Your task to perform on an android device: Open calendar and show me the fourth week of next month Image 0: 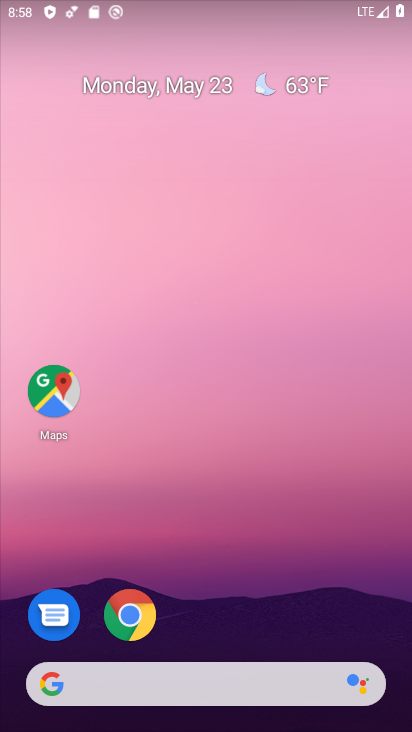
Step 0: drag from (267, 599) to (273, 118)
Your task to perform on an android device: Open calendar and show me the fourth week of next month Image 1: 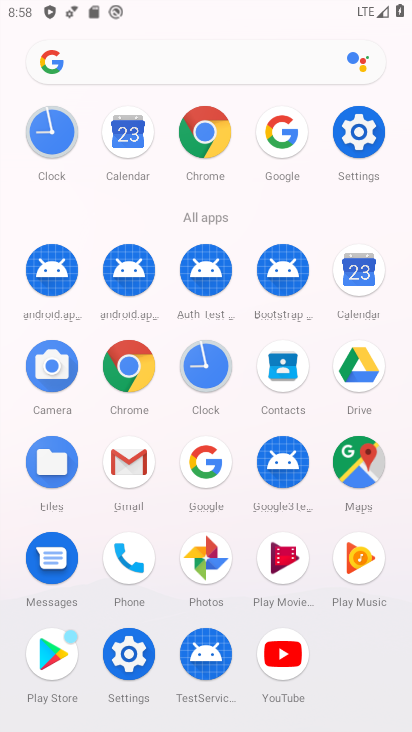
Step 1: click (352, 273)
Your task to perform on an android device: Open calendar and show me the fourth week of next month Image 2: 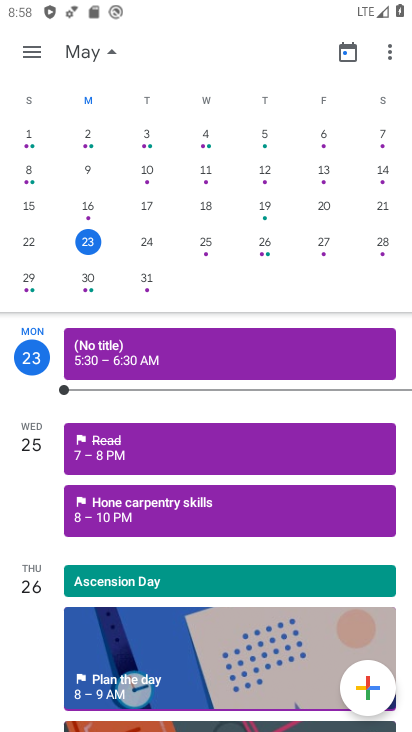
Step 2: drag from (371, 288) to (7, 294)
Your task to perform on an android device: Open calendar and show me the fourth week of next month Image 3: 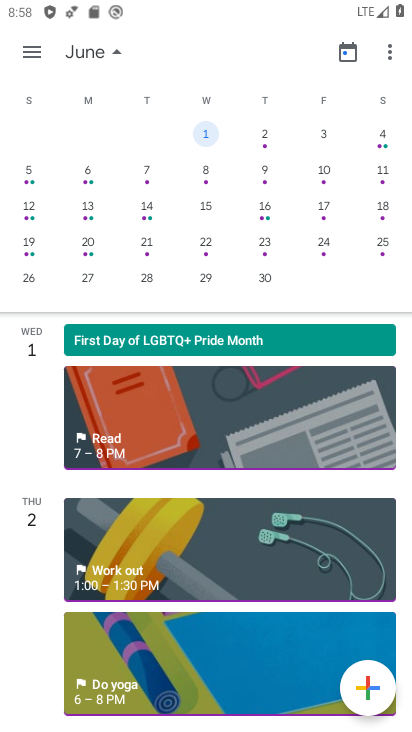
Step 3: click (207, 242)
Your task to perform on an android device: Open calendar and show me the fourth week of next month Image 4: 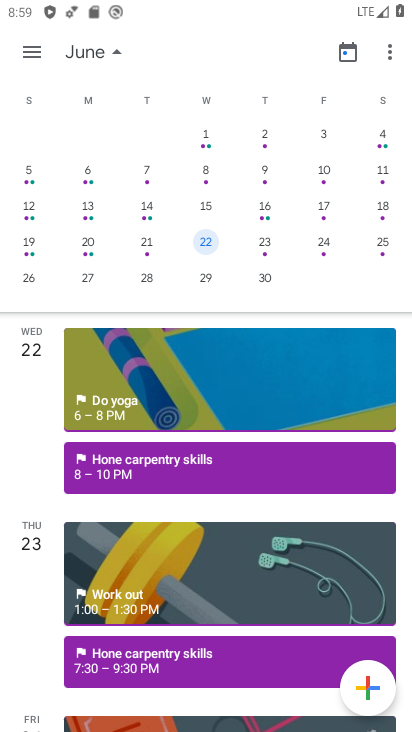
Step 4: task complete